Your task to perform on an android device: Go to network settings Image 0: 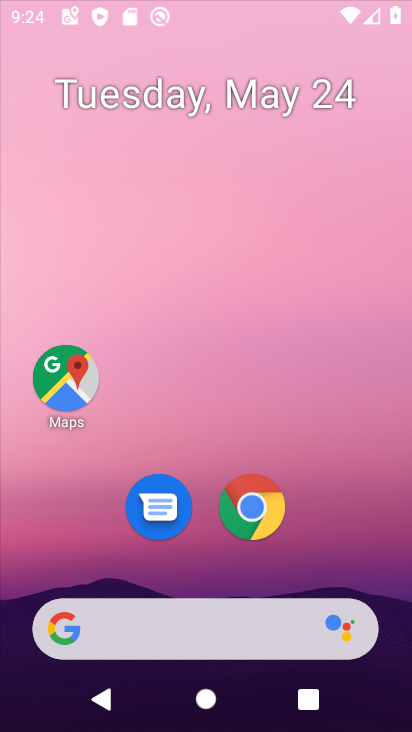
Step 0: click (259, 517)
Your task to perform on an android device: Go to network settings Image 1: 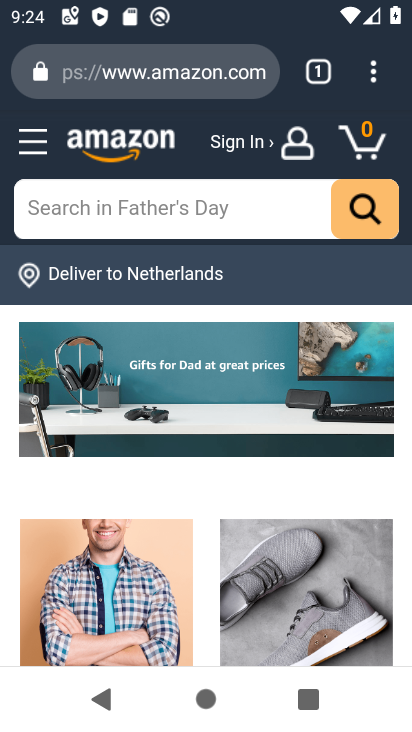
Step 1: press home button
Your task to perform on an android device: Go to network settings Image 2: 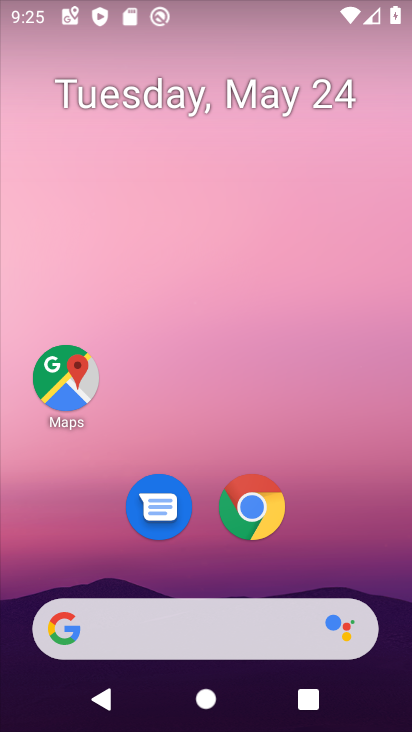
Step 2: drag from (68, 572) to (179, 105)
Your task to perform on an android device: Go to network settings Image 3: 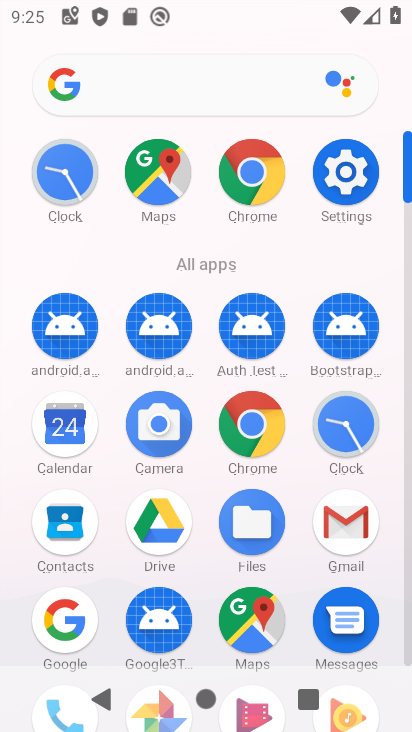
Step 3: drag from (206, 639) to (263, 334)
Your task to perform on an android device: Go to network settings Image 4: 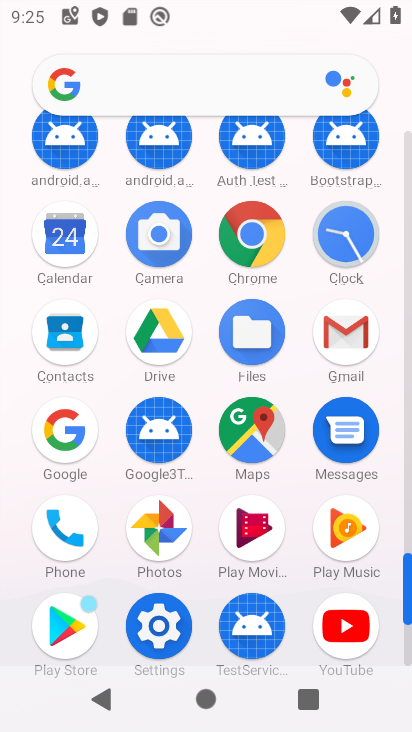
Step 4: click (157, 636)
Your task to perform on an android device: Go to network settings Image 5: 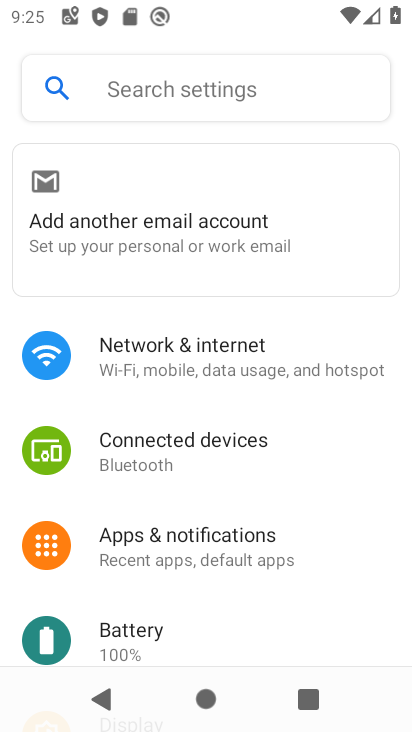
Step 5: click (192, 356)
Your task to perform on an android device: Go to network settings Image 6: 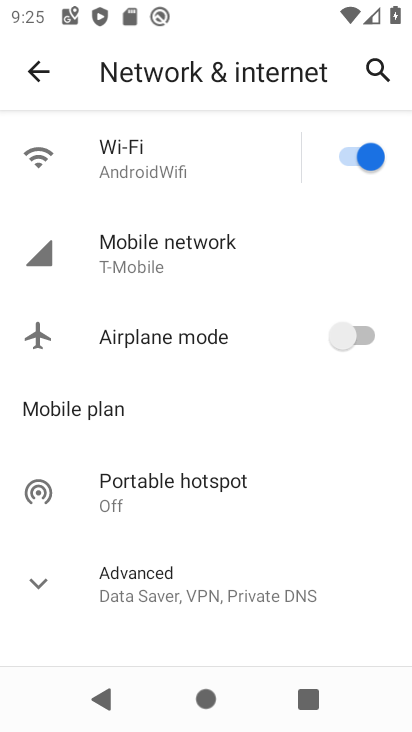
Step 6: click (205, 267)
Your task to perform on an android device: Go to network settings Image 7: 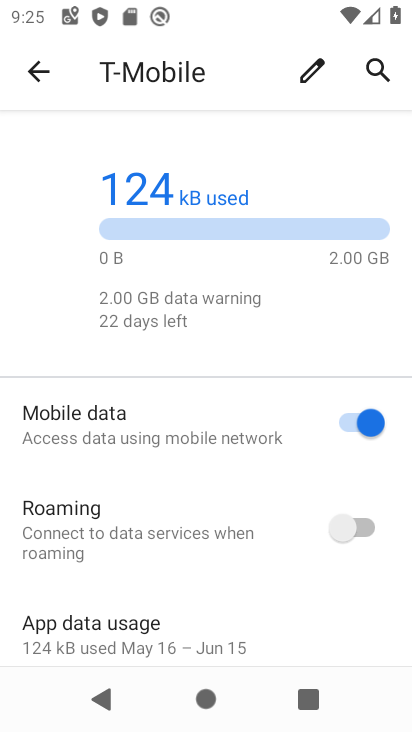
Step 7: task complete